Your task to perform on an android device: open sync settings in chrome Image 0: 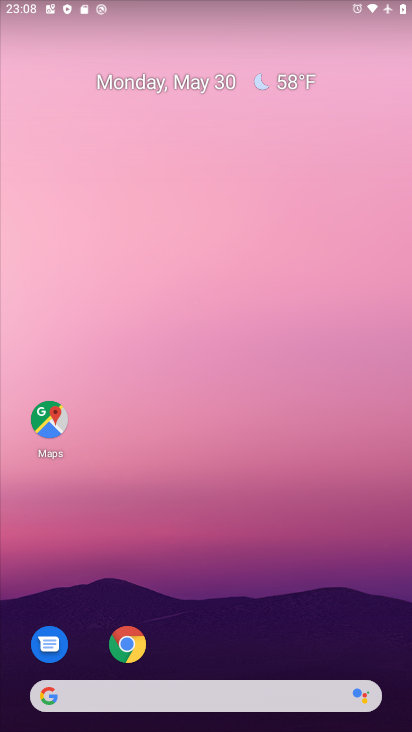
Step 0: click (125, 644)
Your task to perform on an android device: open sync settings in chrome Image 1: 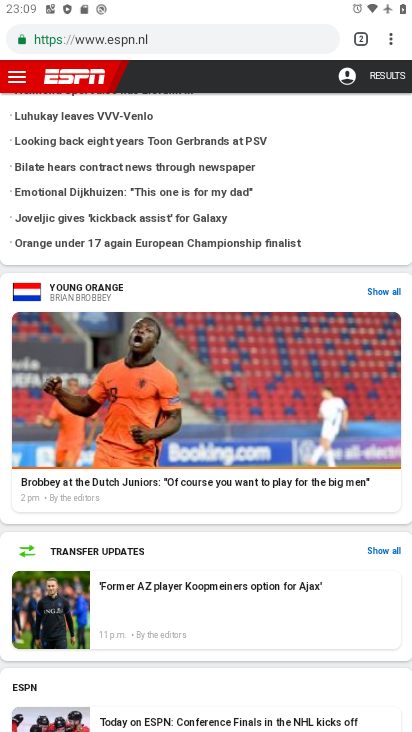
Step 1: click (389, 43)
Your task to perform on an android device: open sync settings in chrome Image 2: 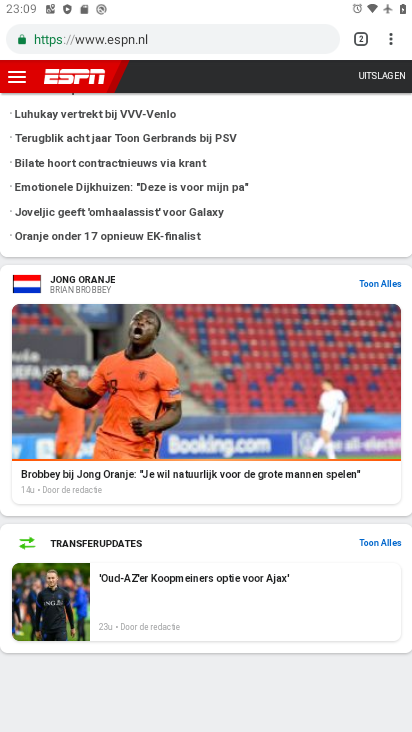
Step 2: click (391, 44)
Your task to perform on an android device: open sync settings in chrome Image 3: 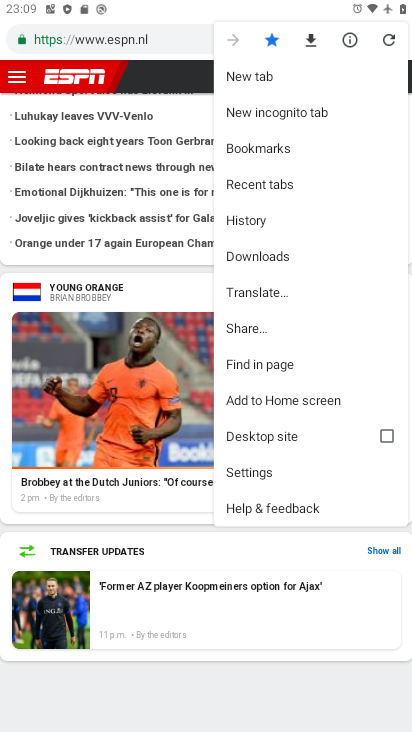
Step 3: click (254, 471)
Your task to perform on an android device: open sync settings in chrome Image 4: 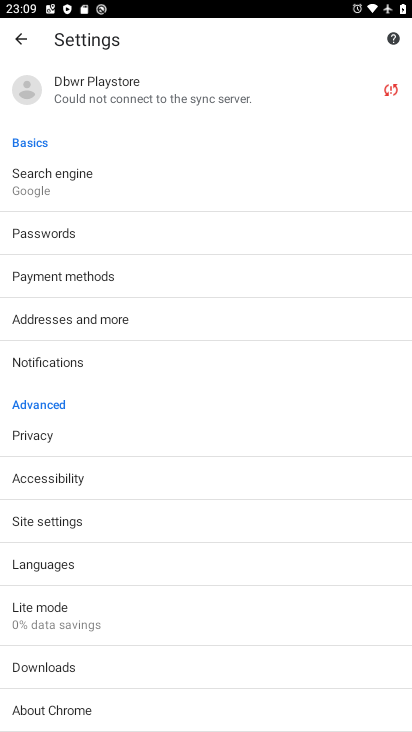
Step 4: click (89, 92)
Your task to perform on an android device: open sync settings in chrome Image 5: 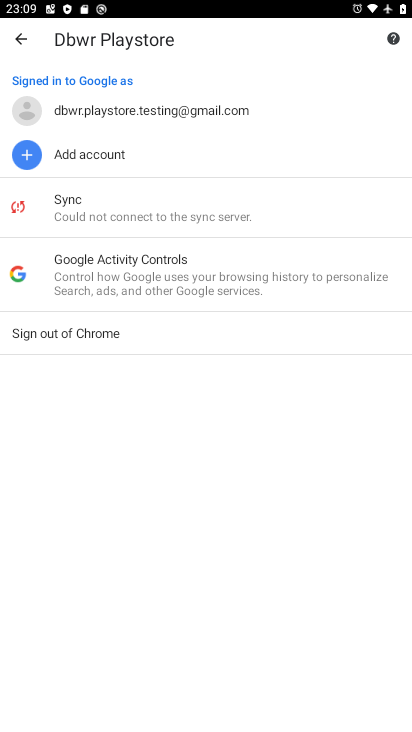
Step 5: click (67, 219)
Your task to perform on an android device: open sync settings in chrome Image 6: 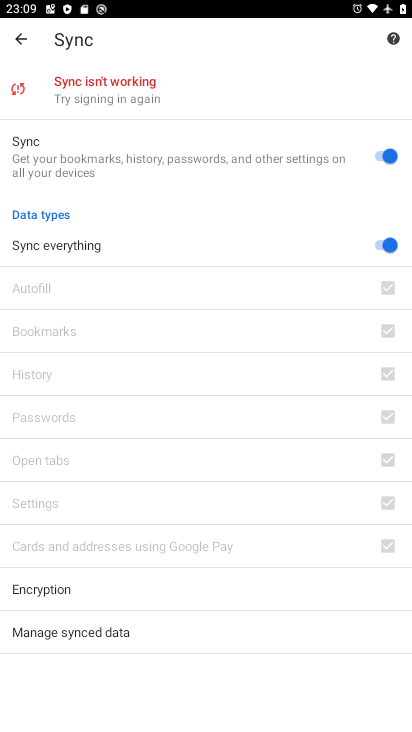
Step 6: task complete